Your task to perform on an android device: Search for vegetarian restaurants on Maps Image 0: 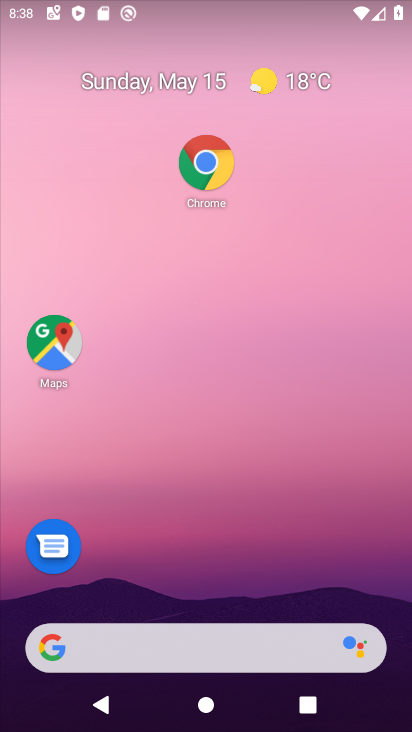
Step 0: drag from (244, 568) to (258, 344)
Your task to perform on an android device: Search for vegetarian restaurants on Maps Image 1: 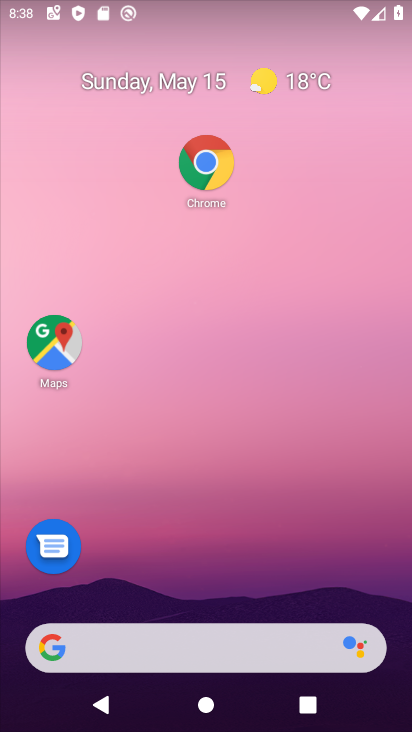
Step 1: click (54, 326)
Your task to perform on an android device: Search for vegetarian restaurants on Maps Image 2: 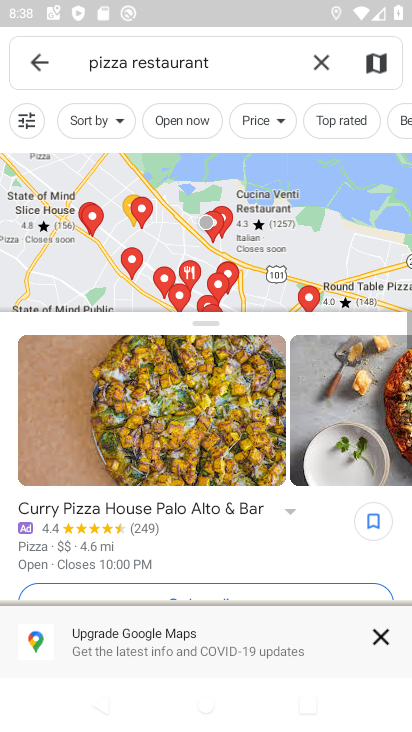
Step 2: click (327, 57)
Your task to perform on an android device: Search for vegetarian restaurants on Maps Image 3: 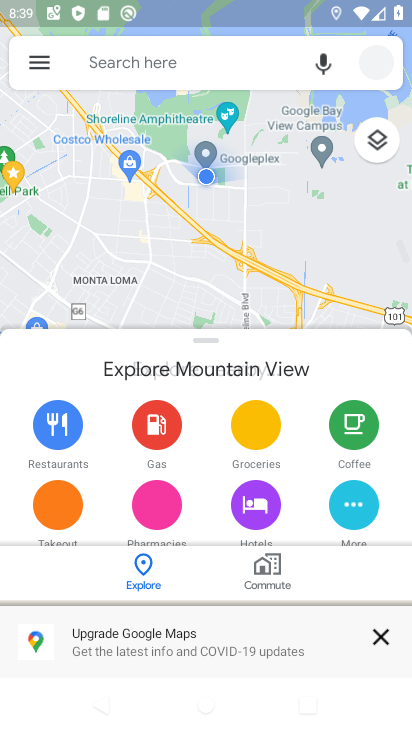
Step 3: click (202, 59)
Your task to perform on an android device: Search for vegetarian restaurants on Maps Image 4: 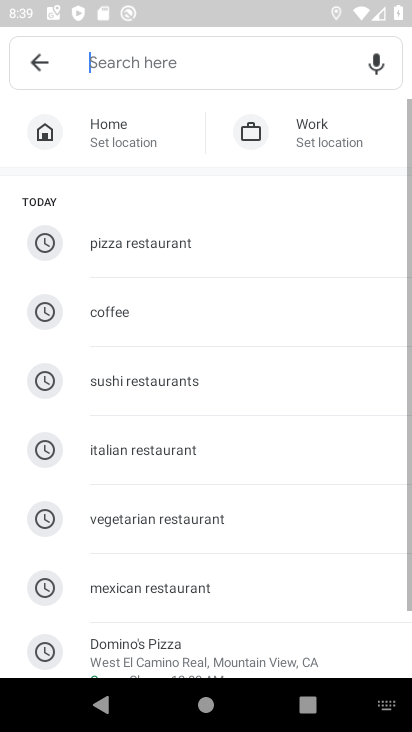
Step 4: click (189, 514)
Your task to perform on an android device: Search for vegetarian restaurants on Maps Image 5: 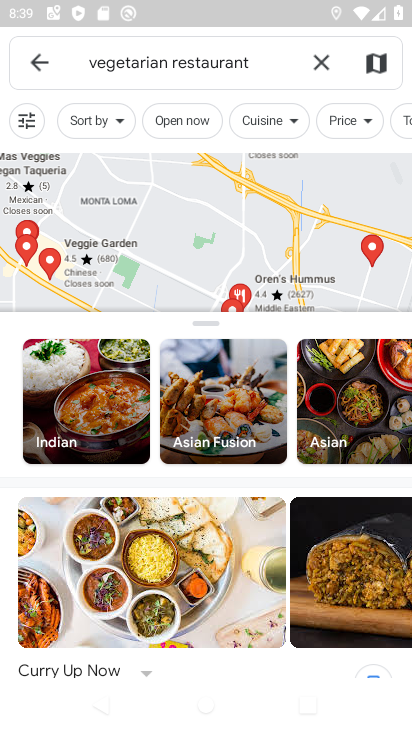
Step 5: task complete